Your task to perform on an android device: turn on javascript in the chrome app Image 0: 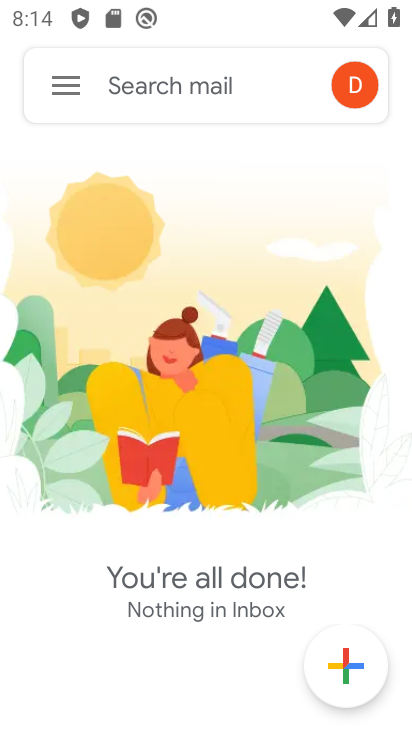
Step 0: press home button
Your task to perform on an android device: turn on javascript in the chrome app Image 1: 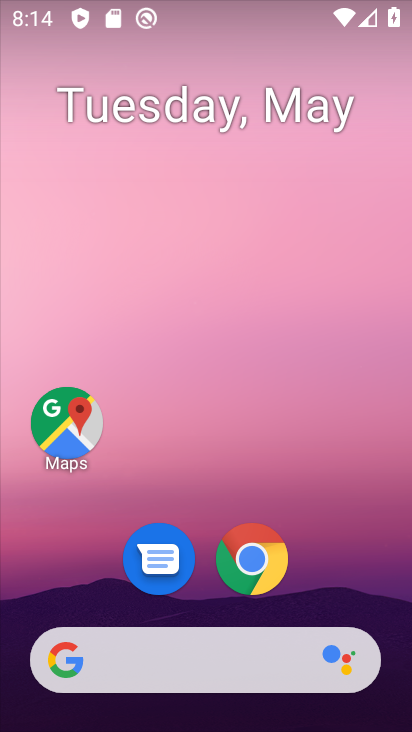
Step 1: click (250, 588)
Your task to perform on an android device: turn on javascript in the chrome app Image 2: 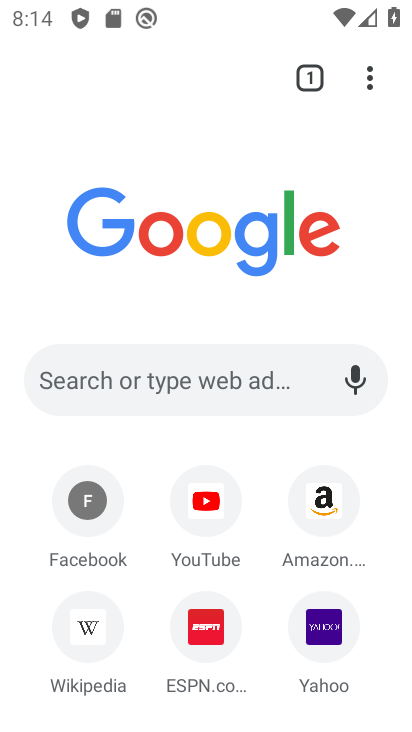
Step 2: drag from (369, 79) to (107, 607)
Your task to perform on an android device: turn on javascript in the chrome app Image 3: 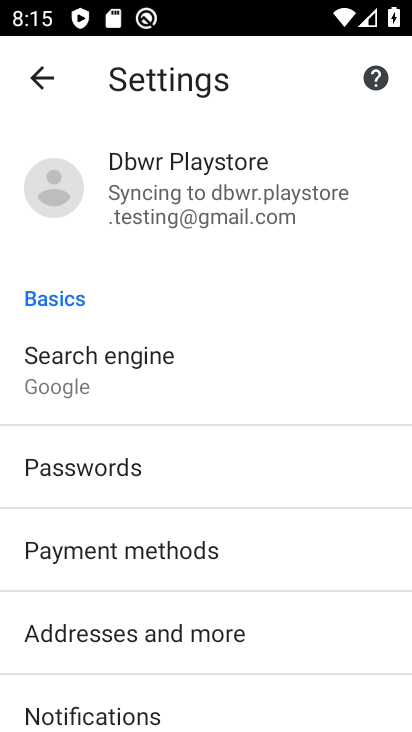
Step 3: drag from (107, 607) to (137, 174)
Your task to perform on an android device: turn on javascript in the chrome app Image 4: 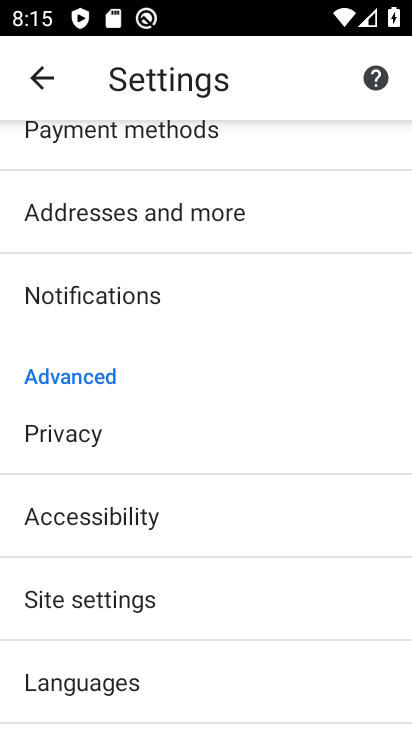
Step 4: click (103, 612)
Your task to perform on an android device: turn on javascript in the chrome app Image 5: 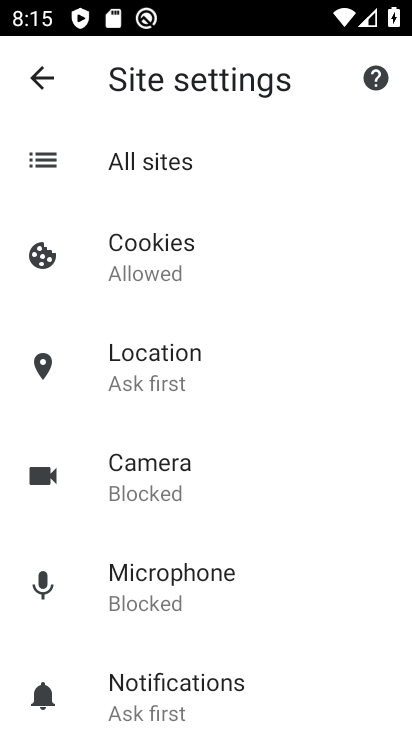
Step 5: drag from (162, 629) to (159, 156)
Your task to perform on an android device: turn on javascript in the chrome app Image 6: 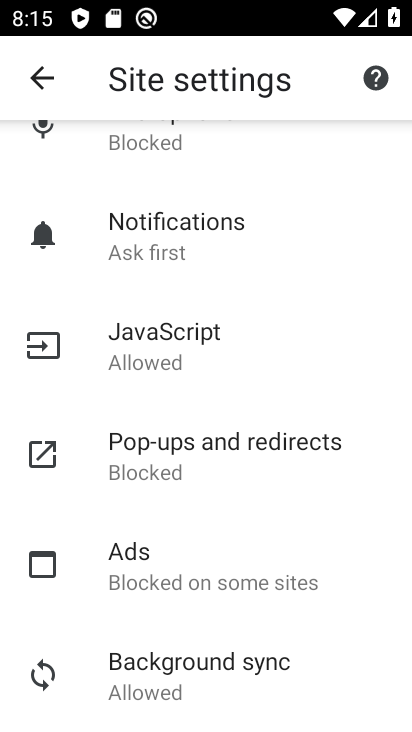
Step 6: click (175, 320)
Your task to perform on an android device: turn on javascript in the chrome app Image 7: 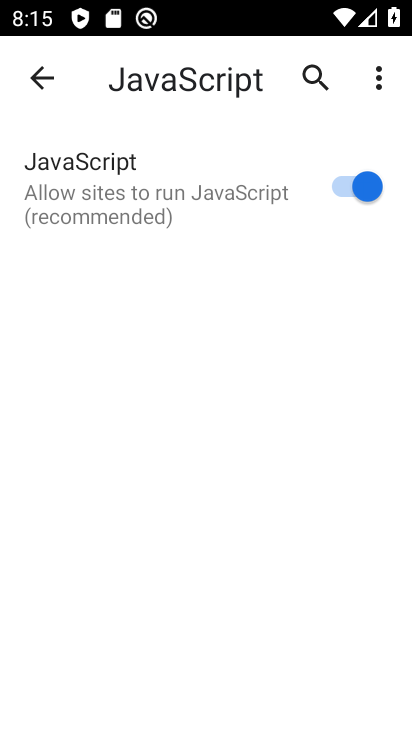
Step 7: task complete